Your task to perform on an android device: turn notification dots off Image 0: 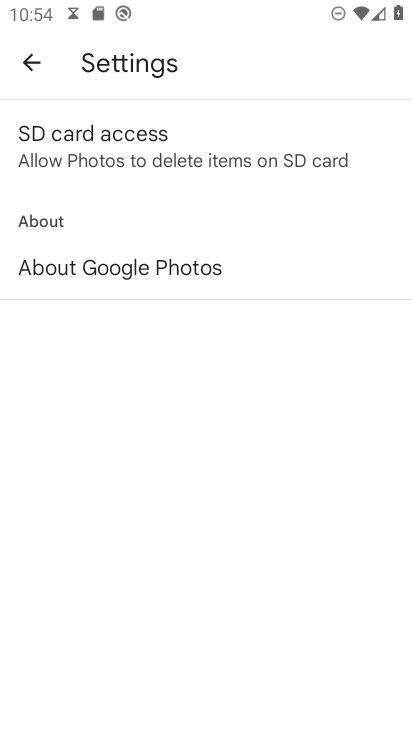
Step 0: press home button
Your task to perform on an android device: turn notification dots off Image 1: 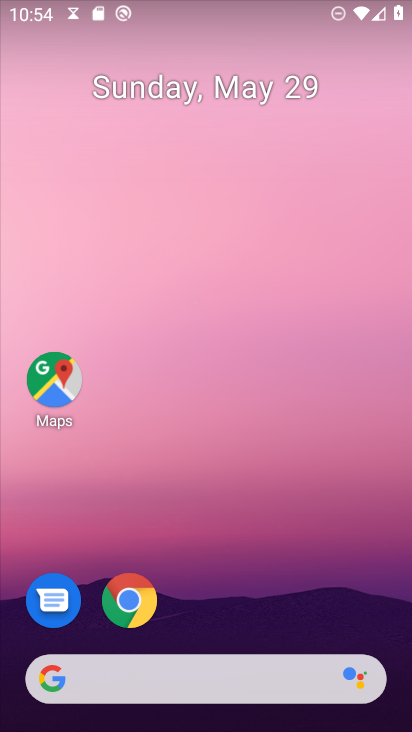
Step 1: drag from (176, 721) to (170, 121)
Your task to perform on an android device: turn notification dots off Image 2: 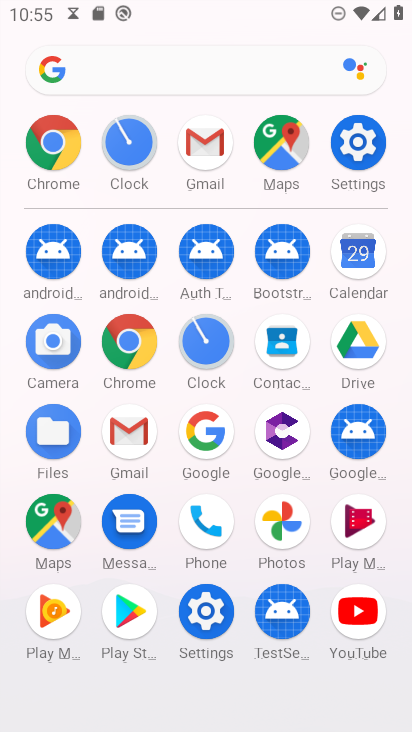
Step 2: click (361, 143)
Your task to perform on an android device: turn notification dots off Image 3: 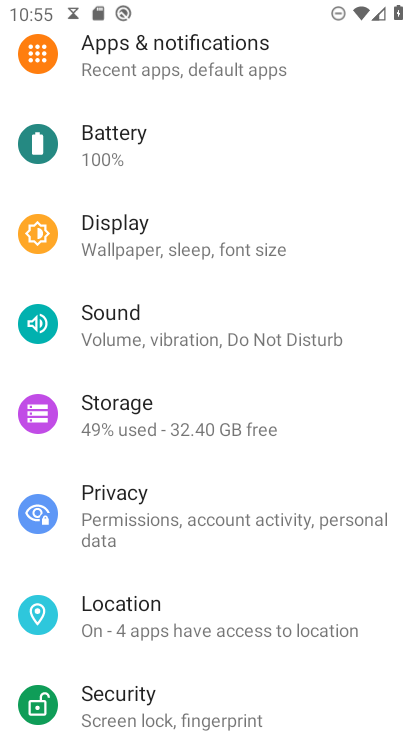
Step 3: click (153, 33)
Your task to perform on an android device: turn notification dots off Image 4: 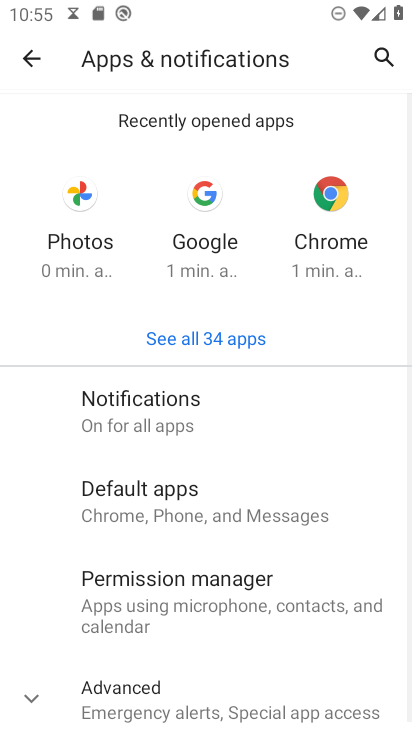
Step 4: click (157, 426)
Your task to perform on an android device: turn notification dots off Image 5: 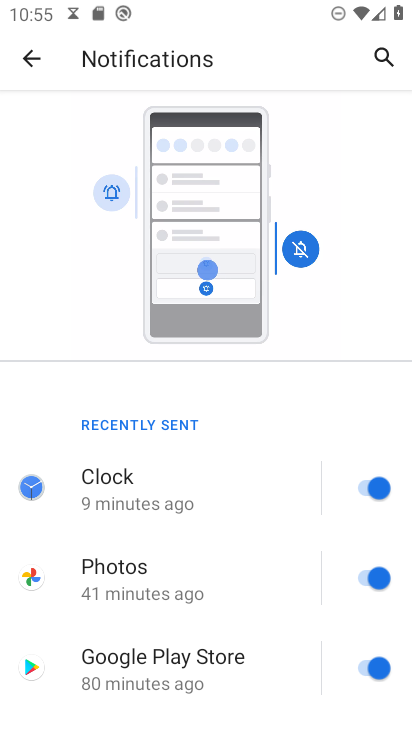
Step 5: drag from (185, 704) to (171, 321)
Your task to perform on an android device: turn notification dots off Image 6: 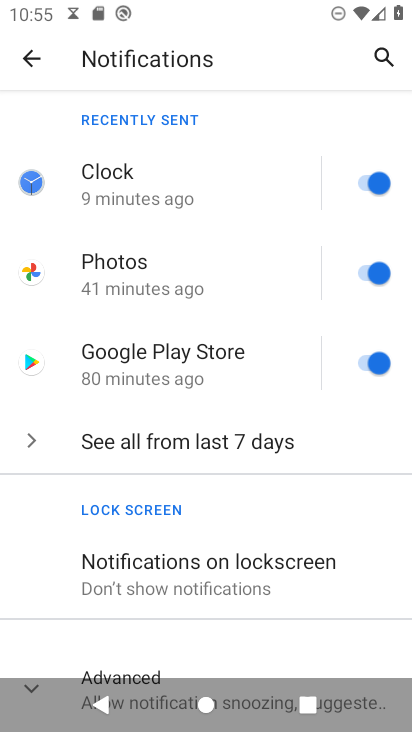
Step 6: drag from (248, 657) to (250, 384)
Your task to perform on an android device: turn notification dots off Image 7: 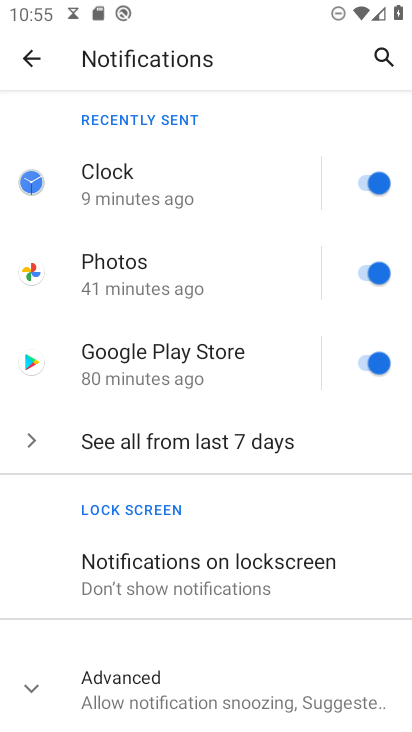
Step 7: click (152, 654)
Your task to perform on an android device: turn notification dots off Image 8: 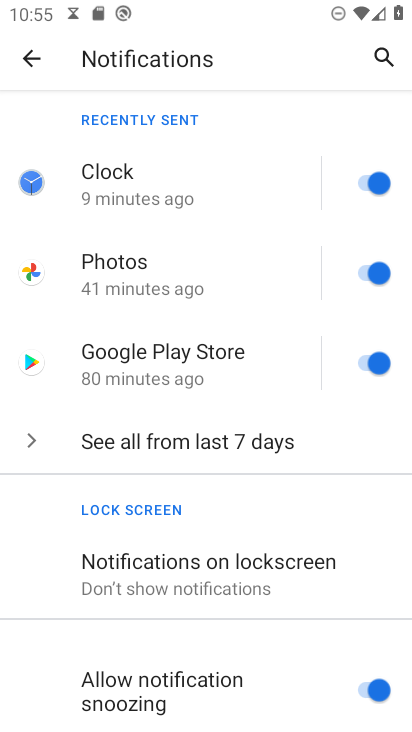
Step 8: drag from (220, 688) to (215, 440)
Your task to perform on an android device: turn notification dots off Image 9: 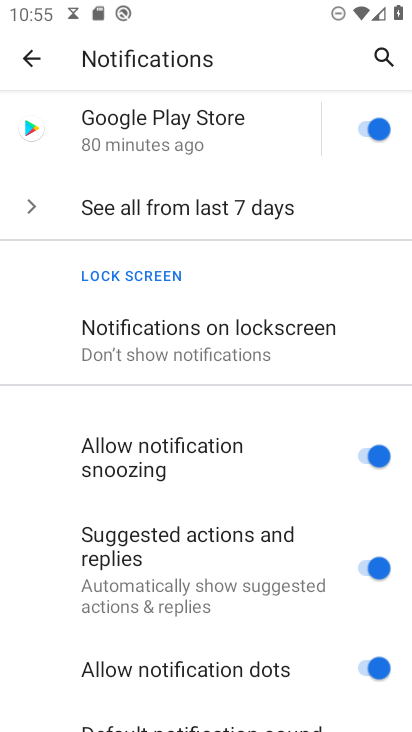
Step 9: click (362, 665)
Your task to perform on an android device: turn notification dots off Image 10: 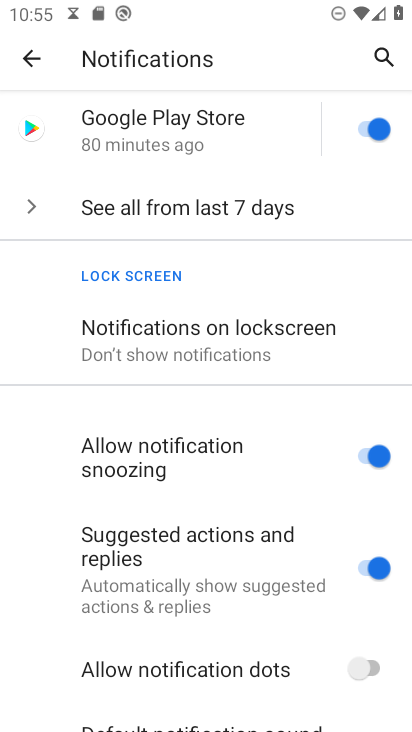
Step 10: task complete